Your task to perform on an android device: open a new tab in the chrome app Image 0: 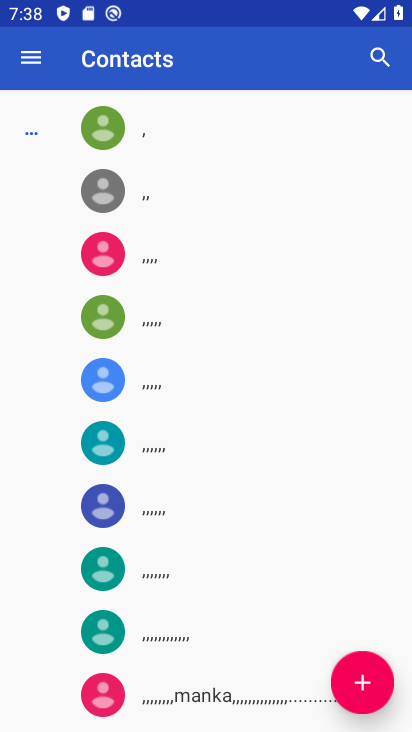
Step 0: press home button
Your task to perform on an android device: open a new tab in the chrome app Image 1: 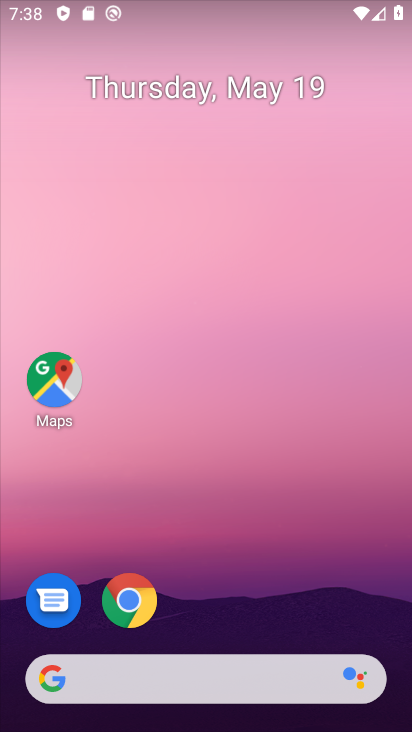
Step 1: click (139, 607)
Your task to perform on an android device: open a new tab in the chrome app Image 2: 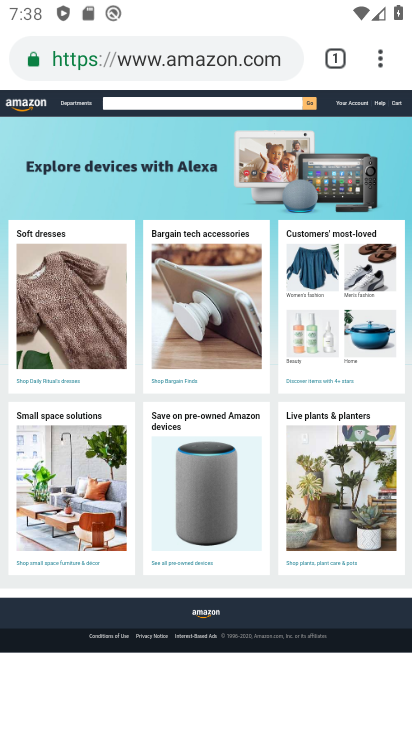
Step 2: click (381, 59)
Your task to perform on an android device: open a new tab in the chrome app Image 3: 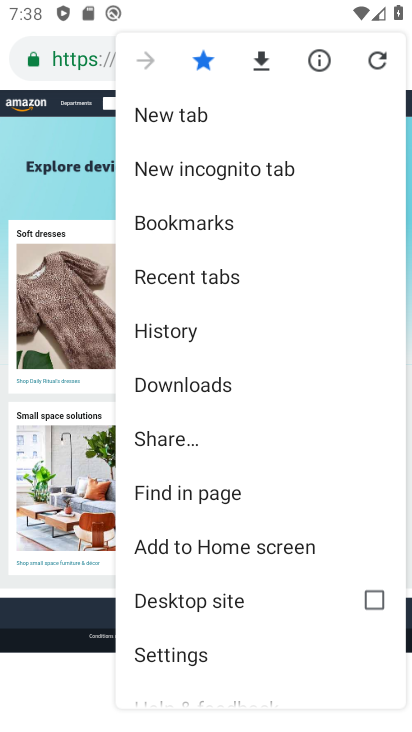
Step 3: click (173, 120)
Your task to perform on an android device: open a new tab in the chrome app Image 4: 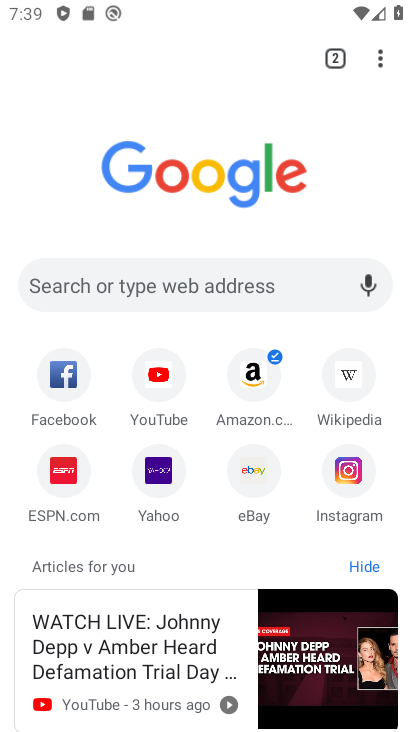
Step 4: task complete